Your task to perform on an android device: Search for sushi restaurants on Maps Image 0: 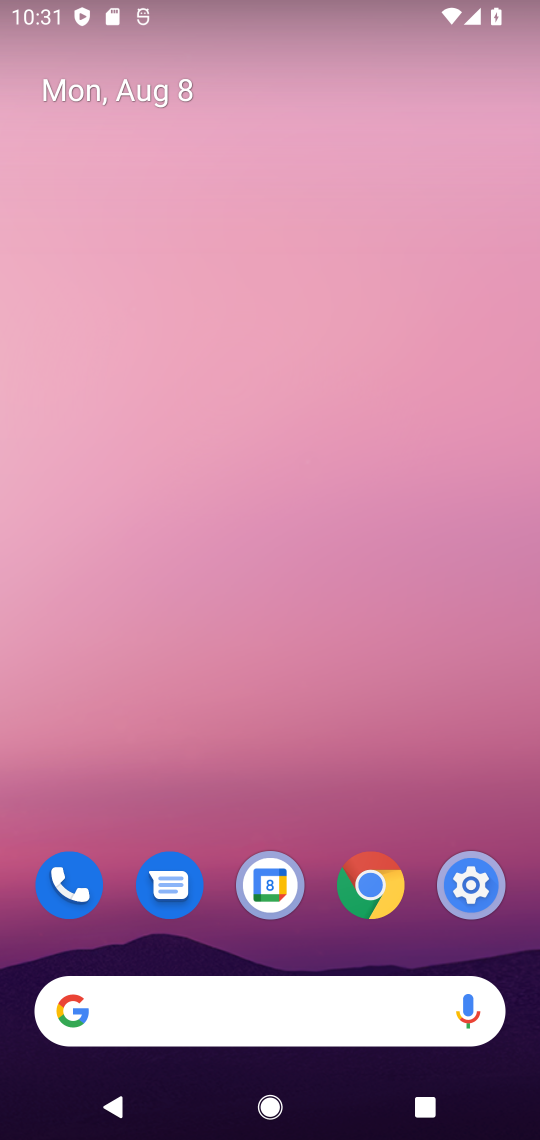
Step 0: drag from (140, 1052) to (371, 527)
Your task to perform on an android device: Search for sushi restaurants on Maps Image 1: 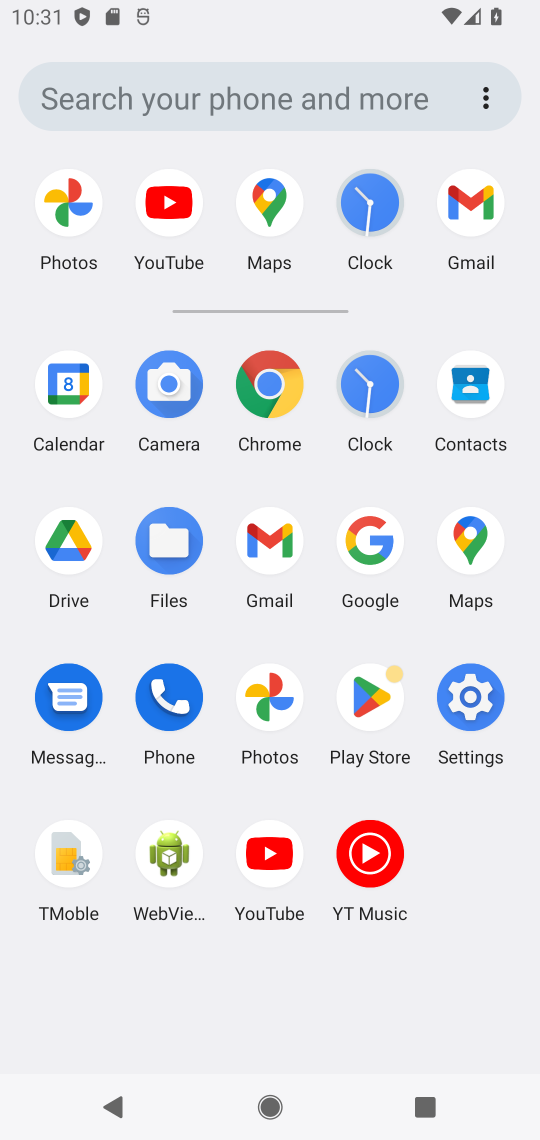
Step 1: click (263, 218)
Your task to perform on an android device: Search for sushi restaurants on Maps Image 2: 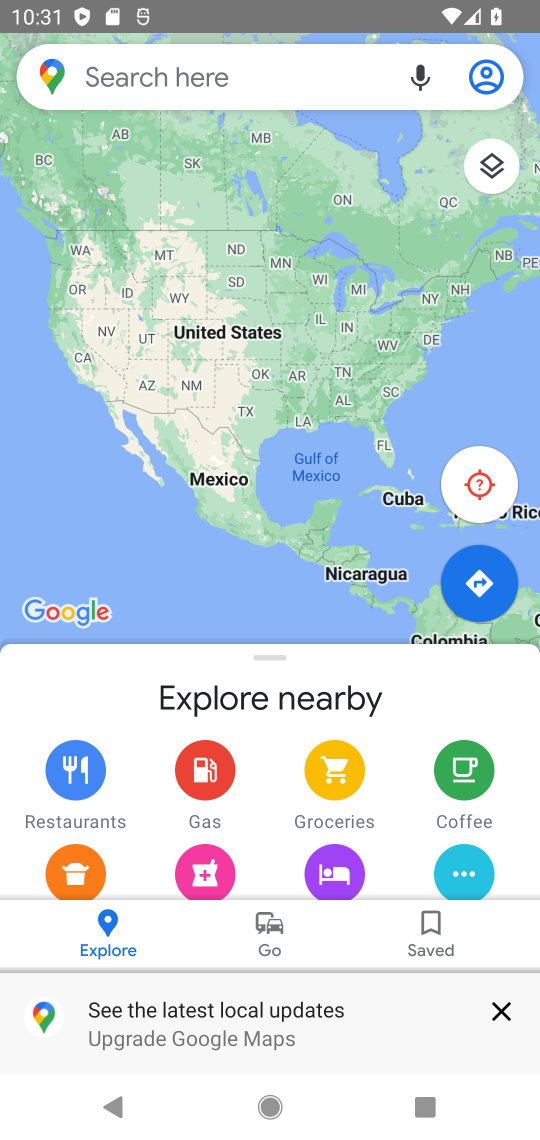
Step 2: click (210, 77)
Your task to perform on an android device: Search for sushi restaurants on Maps Image 3: 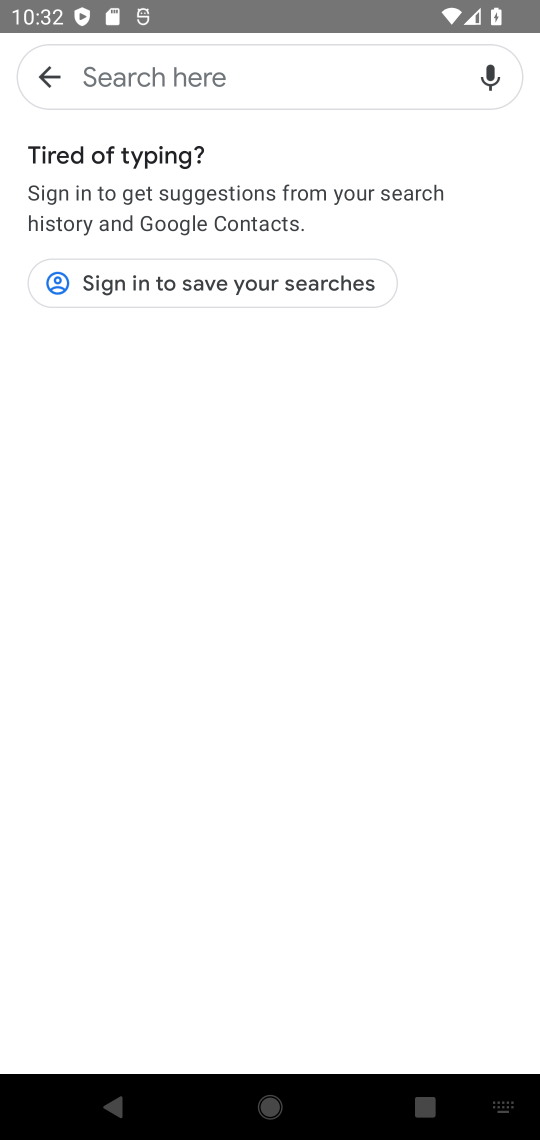
Step 3: type "sushi rest"
Your task to perform on an android device: Search for sushi restaurants on Maps Image 4: 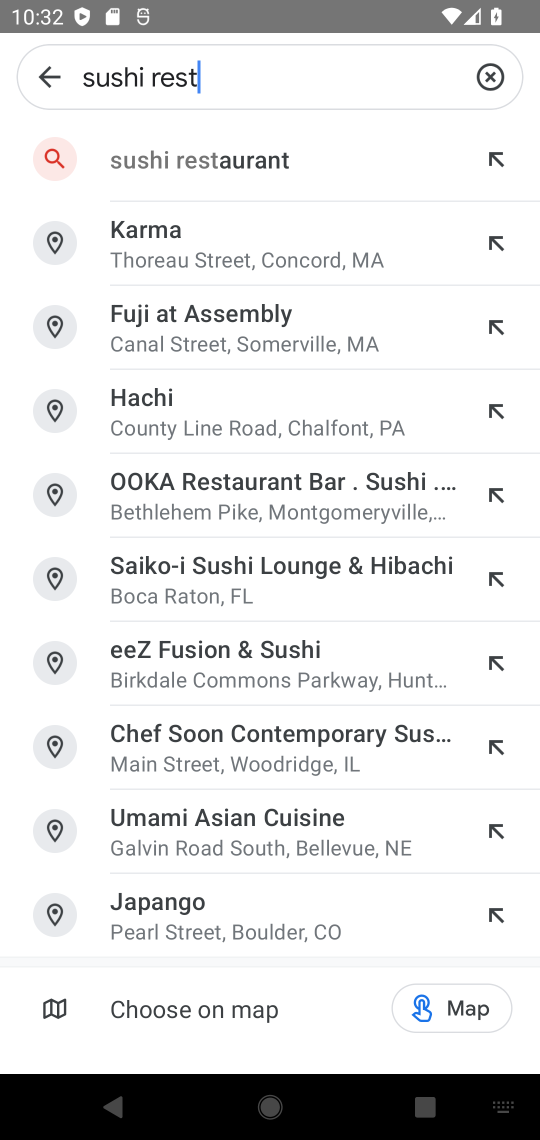
Step 4: click (318, 171)
Your task to perform on an android device: Search for sushi restaurants on Maps Image 5: 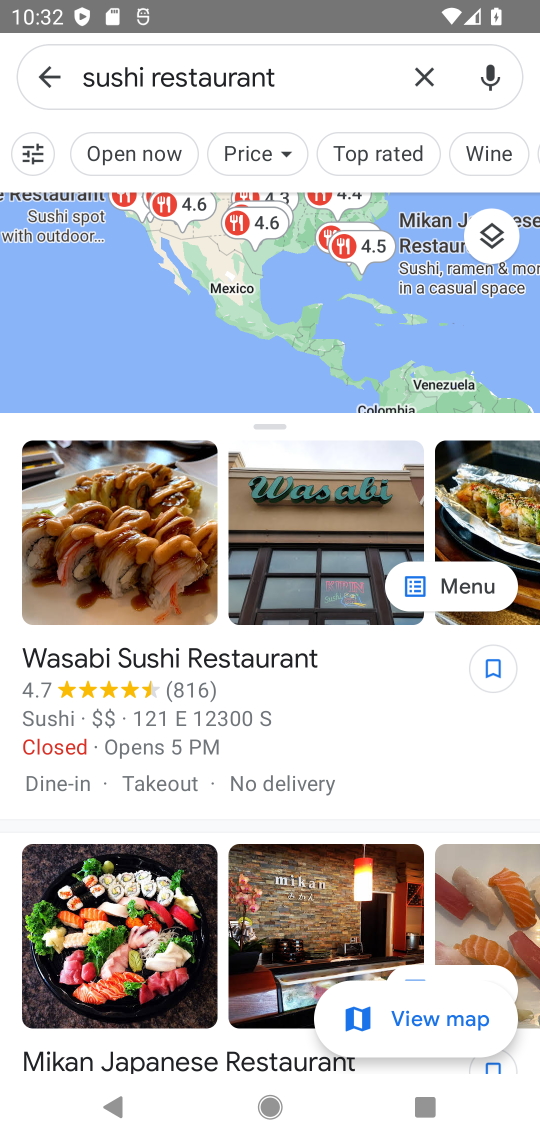
Step 5: task complete